Your task to perform on an android device: Go to ESPN.com Image 0: 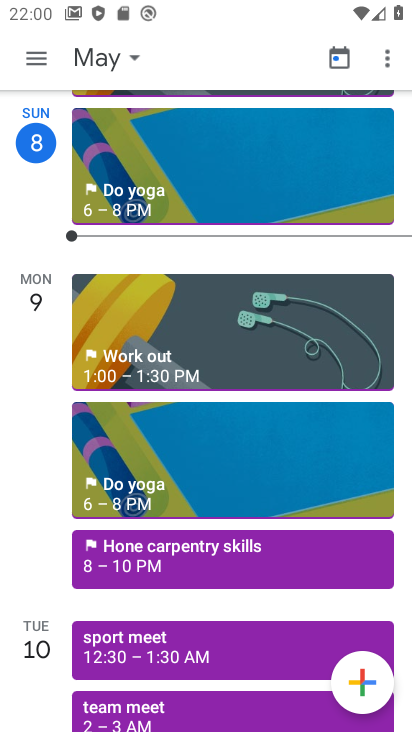
Step 0: press home button
Your task to perform on an android device: Go to ESPN.com Image 1: 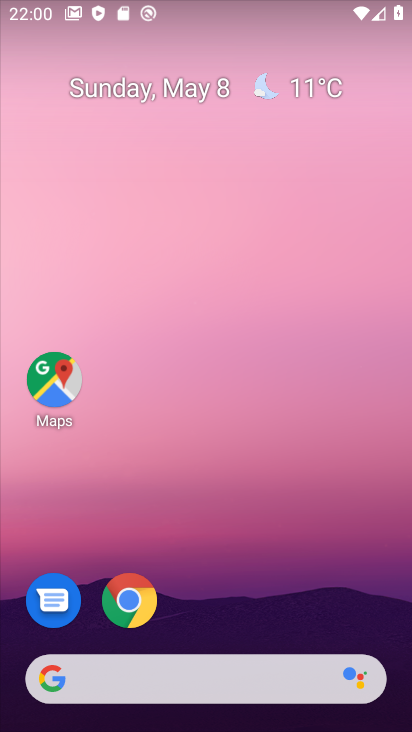
Step 1: click (135, 595)
Your task to perform on an android device: Go to ESPN.com Image 2: 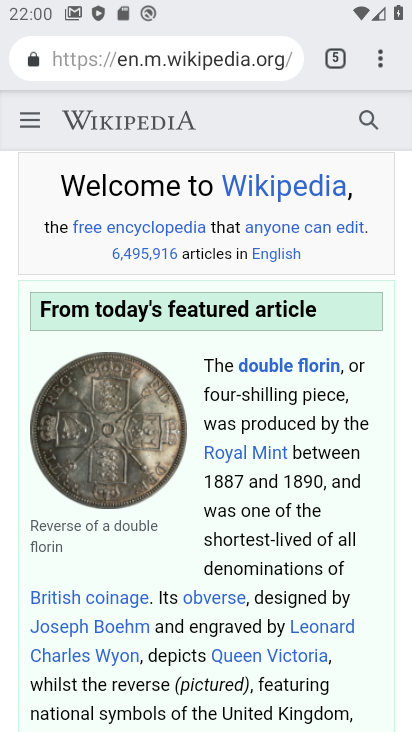
Step 2: click (325, 53)
Your task to perform on an android device: Go to ESPN.com Image 3: 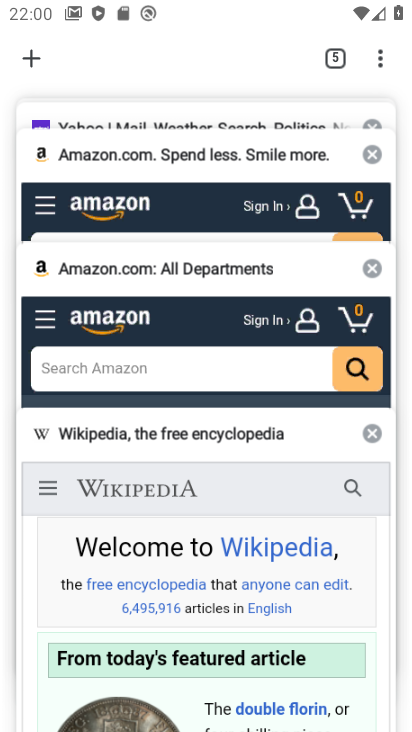
Step 3: click (41, 54)
Your task to perform on an android device: Go to ESPN.com Image 4: 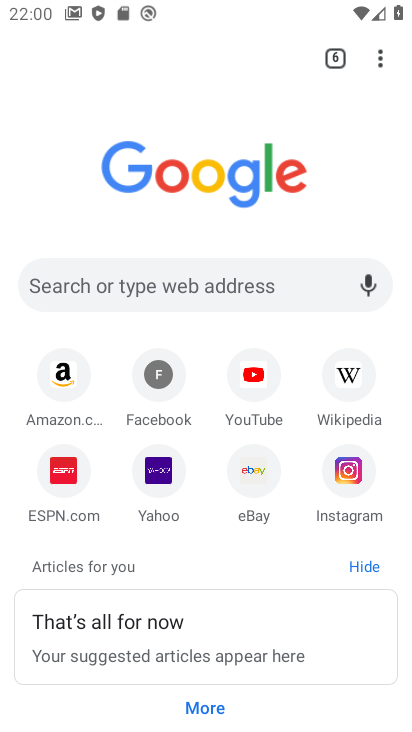
Step 4: click (68, 481)
Your task to perform on an android device: Go to ESPN.com Image 5: 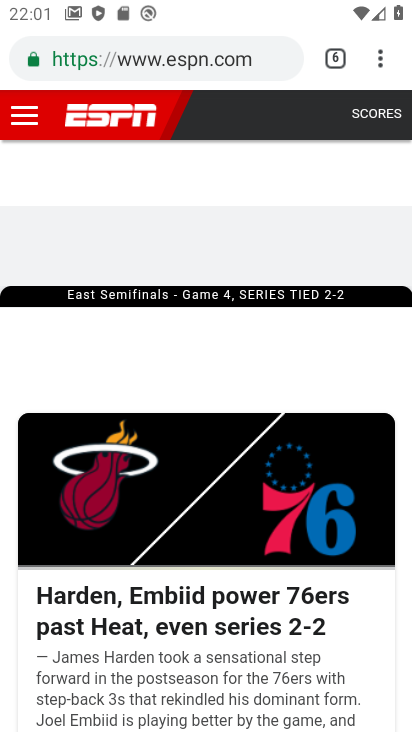
Step 5: task complete